Your task to perform on an android device: Open a new incognito window in the chrome app Image 0: 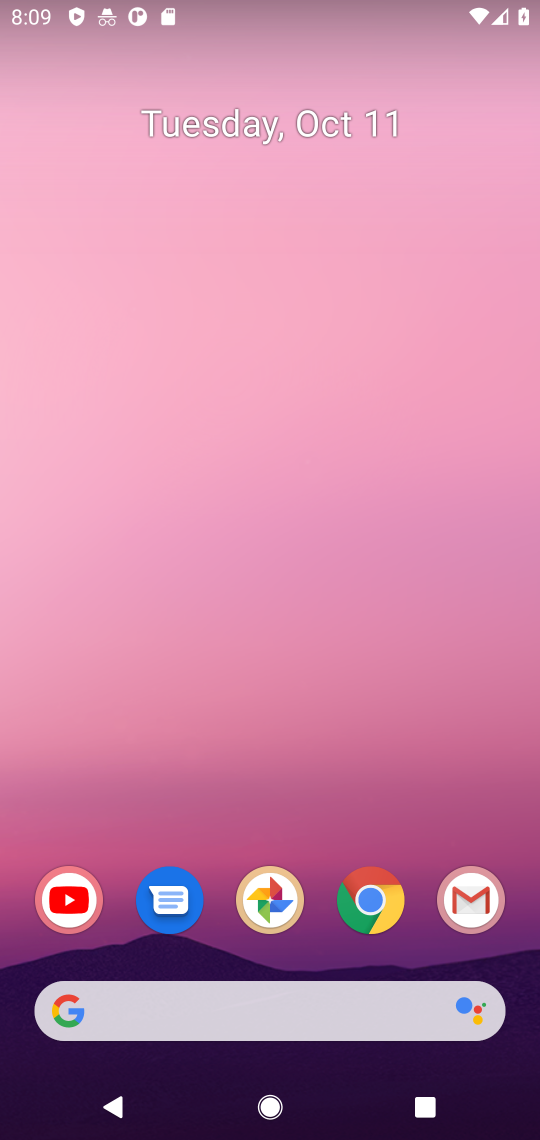
Step 0: click (349, 909)
Your task to perform on an android device: Open a new incognito window in the chrome app Image 1: 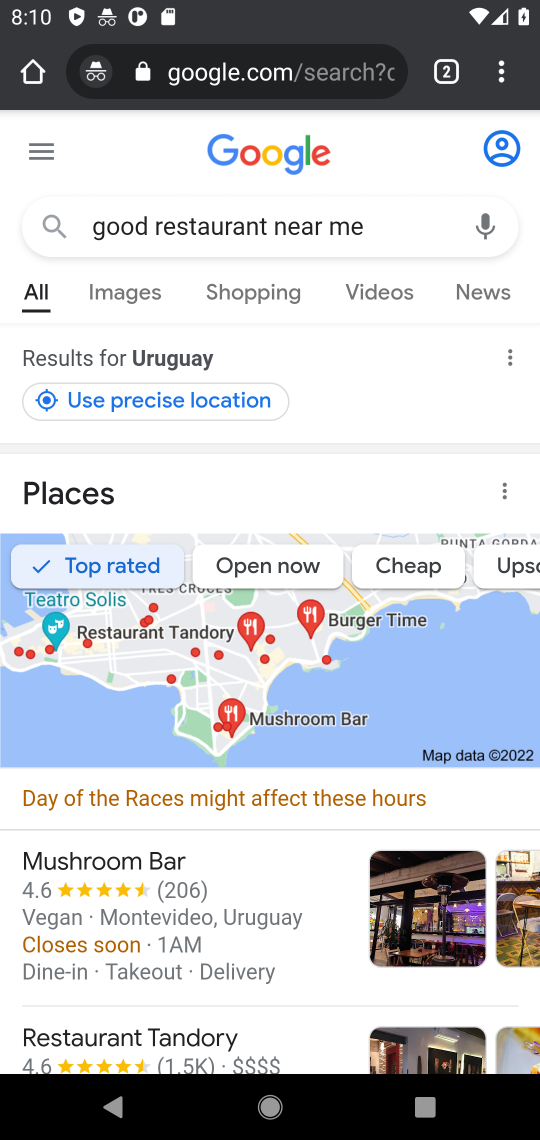
Step 1: click (513, 76)
Your task to perform on an android device: Open a new incognito window in the chrome app Image 2: 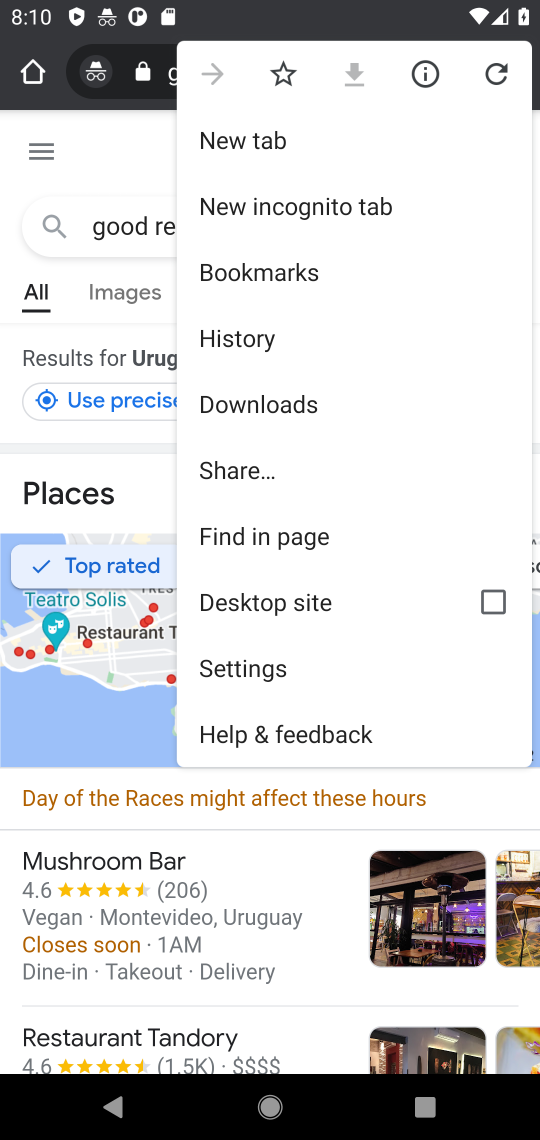
Step 2: click (443, 209)
Your task to perform on an android device: Open a new incognito window in the chrome app Image 3: 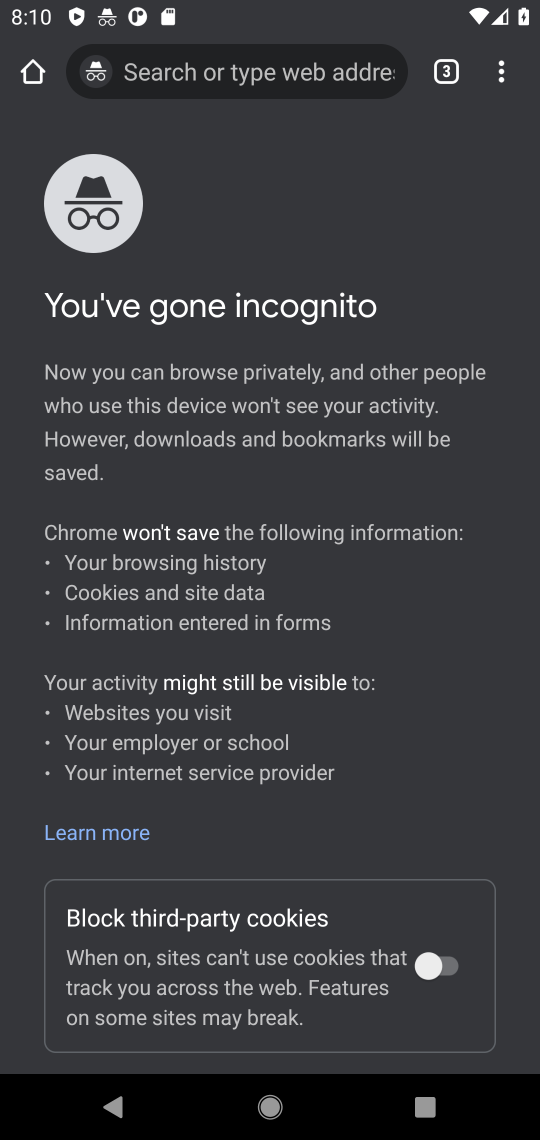
Step 3: task complete